Your task to perform on an android device: Open Google Chrome Image 0: 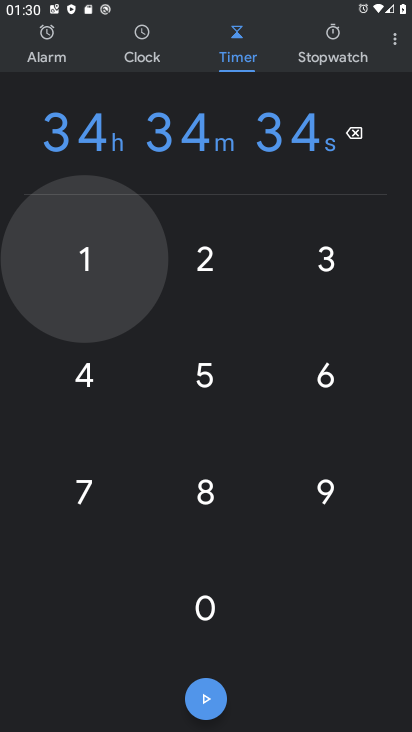
Step 0: press home button
Your task to perform on an android device: Open Google Chrome Image 1: 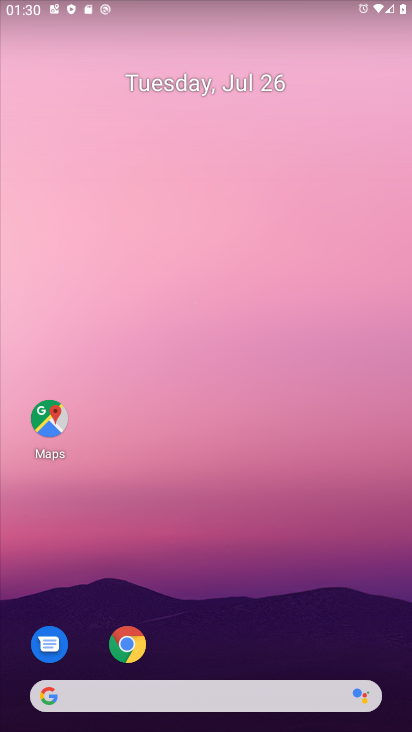
Step 1: drag from (202, 696) to (208, 567)
Your task to perform on an android device: Open Google Chrome Image 2: 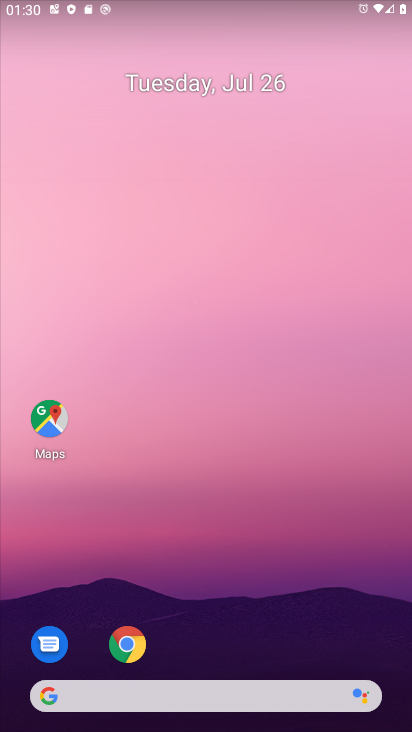
Step 2: drag from (242, 579) to (248, 272)
Your task to perform on an android device: Open Google Chrome Image 3: 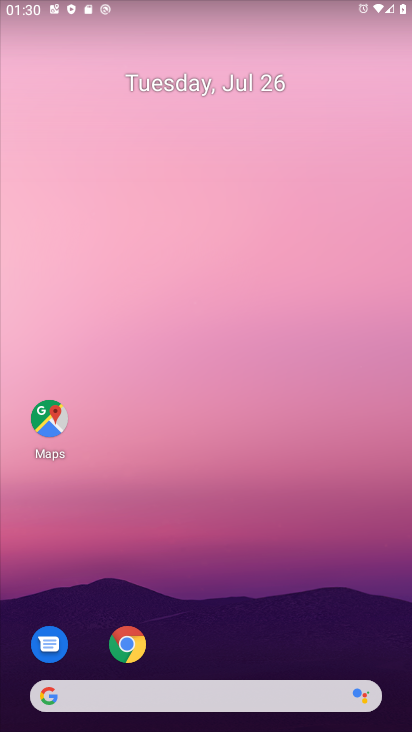
Step 3: click (261, 255)
Your task to perform on an android device: Open Google Chrome Image 4: 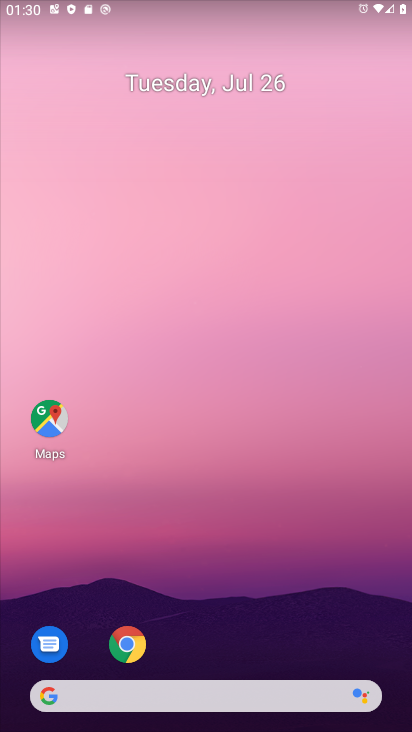
Step 4: drag from (276, 607) to (266, 241)
Your task to perform on an android device: Open Google Chrome Image 5: 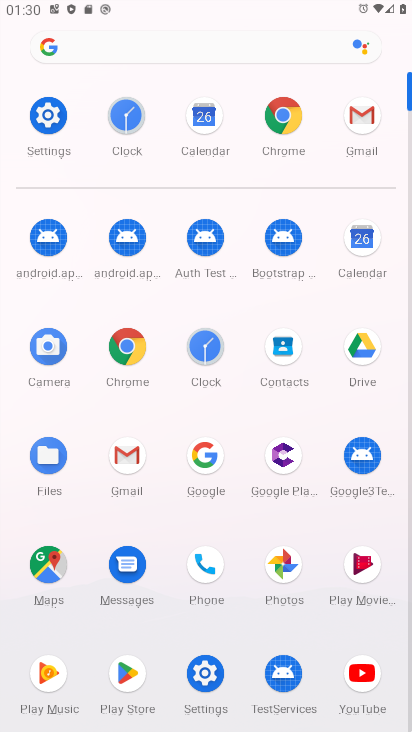
Step 5: click (209, 456)
Your task to perform on an android device: Open Google Chrome Image 6: 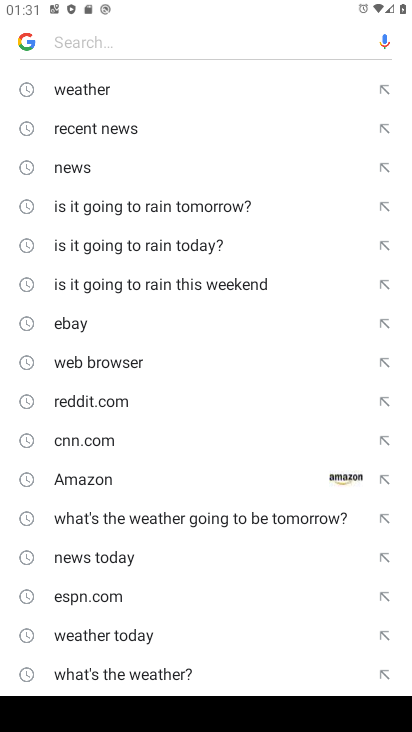
Step 6: task complete